Your task to perform on an android device: Open Reddit.com Image 0: 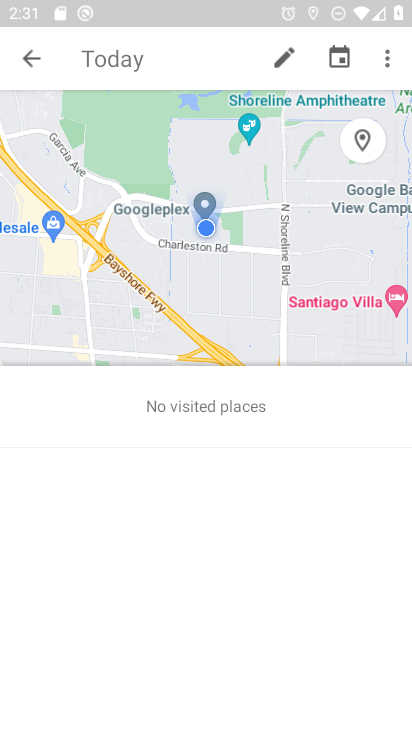
Step 0: press home button
Your task to perform on an android device: Open Reddit.com Image 1: 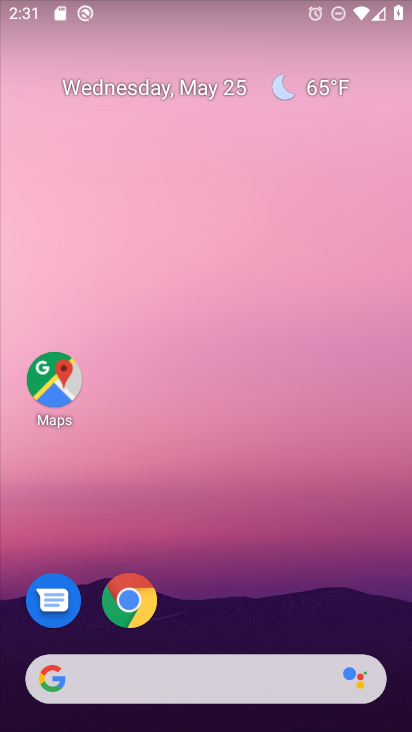
Step 1: click (134, 602)
Your task to perform on an android device: Open Reddit.com Image 2: 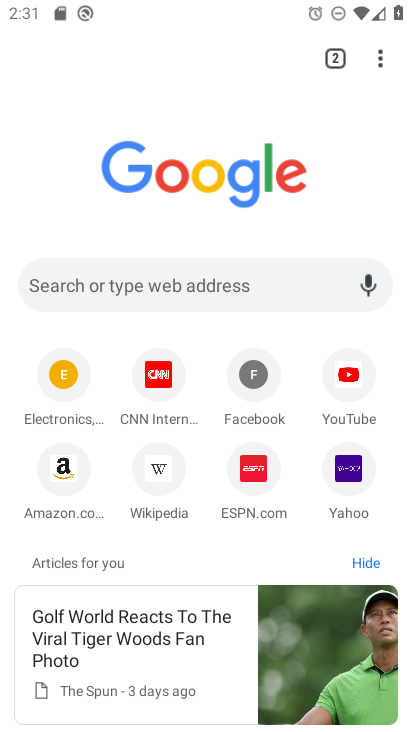
Step 2: click (196, 276)
Your task to perform on an android device: Open Reddit.com Image 3: 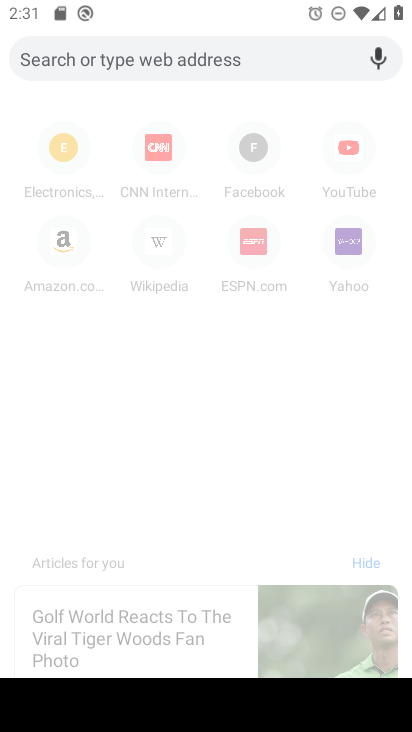
Step 3: type "reddit.com"
Your task to perform on an android device: Open Reddit.com Image 4: 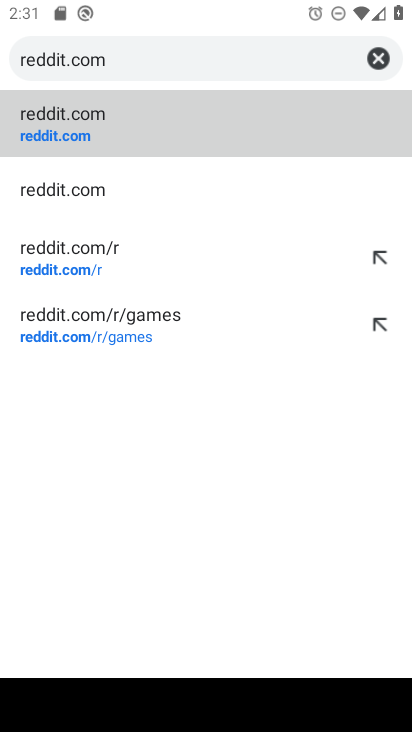
Step 4: click (47, 149)
Your task to perform on an android device: Open Reddit.com Image 5: 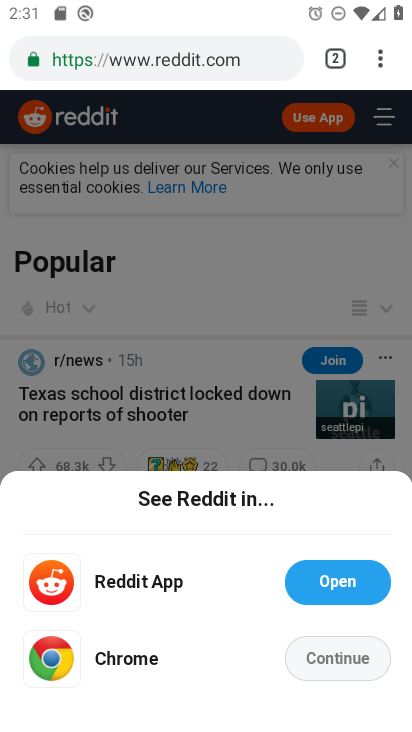
Step 5: task complete